Your task to perform on an android device: turn off wifi Image 0: 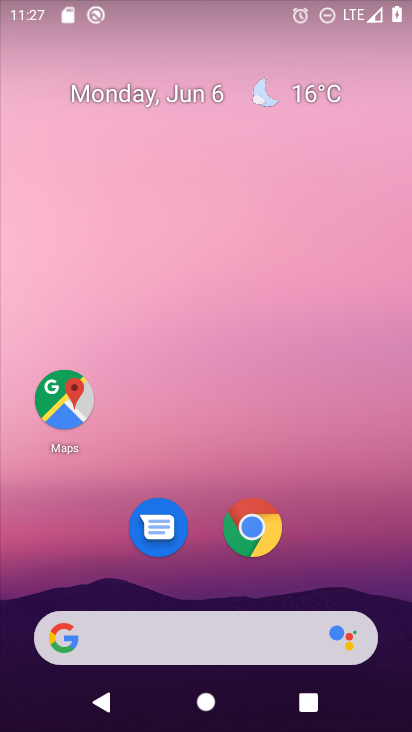
Step 0: drag from (332, 532) to (325, 133)
Your task to perform on an android device: turn off wifi Image 1: 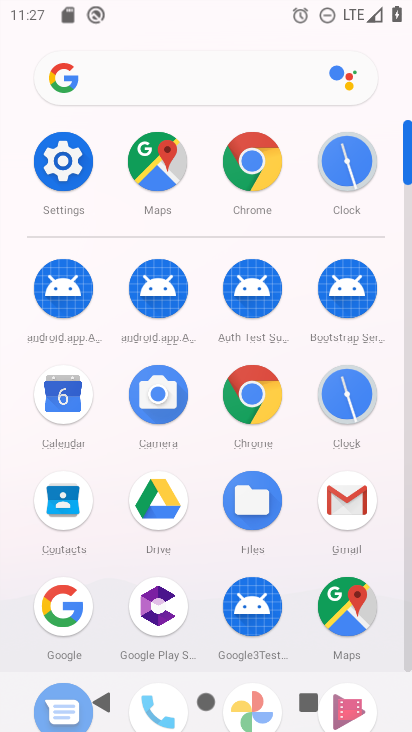
Step 1: click (47, 174)
Your task to perform on an android device: turn off wifi Image 2: 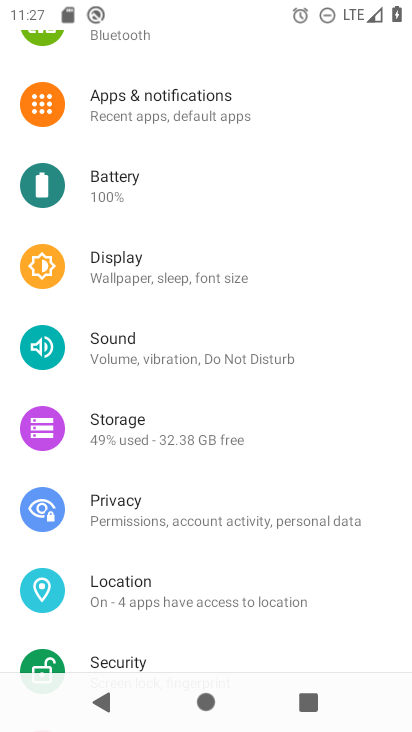
Step 2: drag from (343, 400) to (346, 241)
Your task to perform on an android device: turn off wifi Image 3: 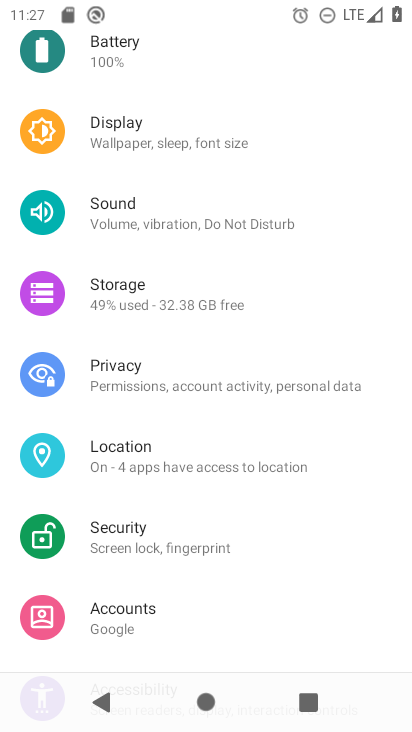
Step 3: drag from (367, 478) to (363, 223)
Your task to perform on an android device: turn off wifi Image 4: 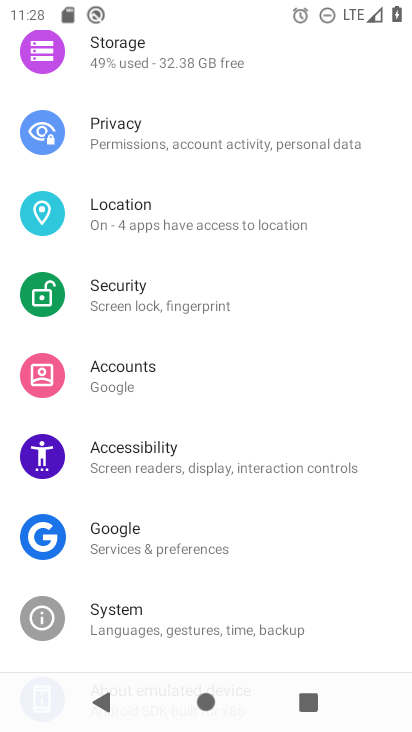
Step 4: drag from (352, 508) to (397, 227)
Your task to perform on an android device: turn off wifi Image 5: 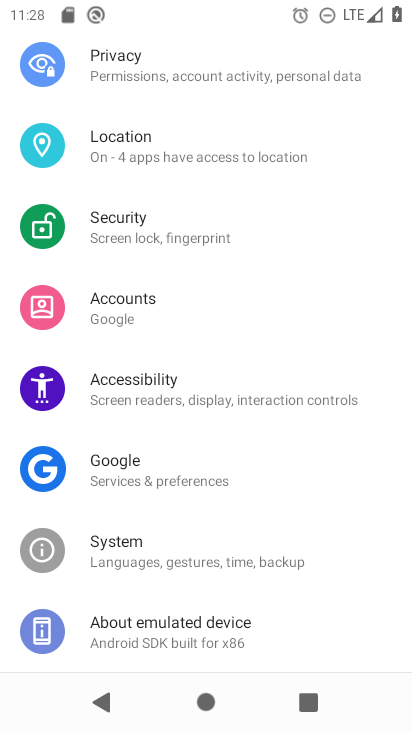
Step 5: drag from (362, 231) to (375, 471)
Your task to perform on an android device: turn off wifi Image 6: 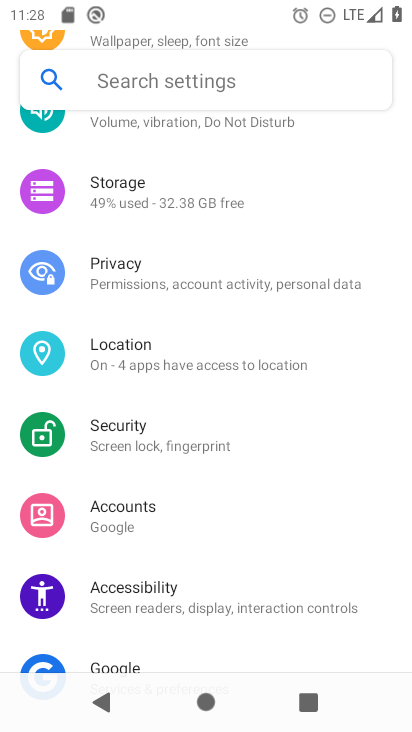
Step 6: drag from (357, 203) to (397, 439)
Your task to perform on an android device: turn off wifi Image 7: 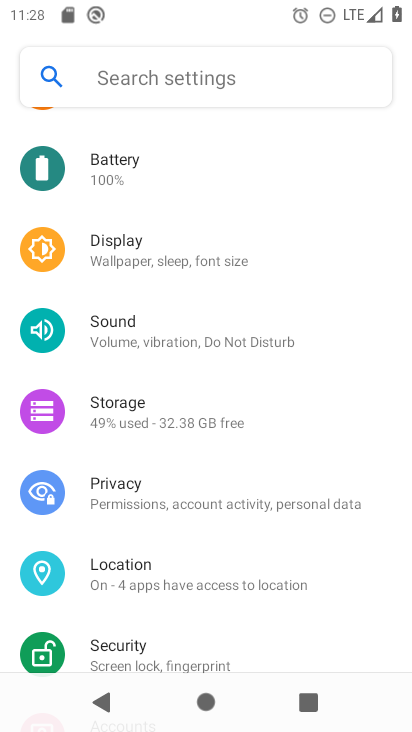
Step 7: drag from (339, 201) to (354, 449)
Your task to perform on an android device: turn off wifi Image 8: 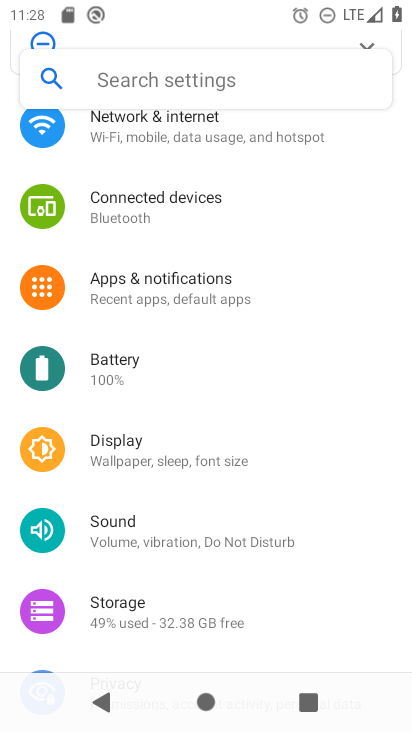
Step 8: drag from (328, 232) to (346, 390)
Your task to perform on an android device: turn off wifi Image 9: 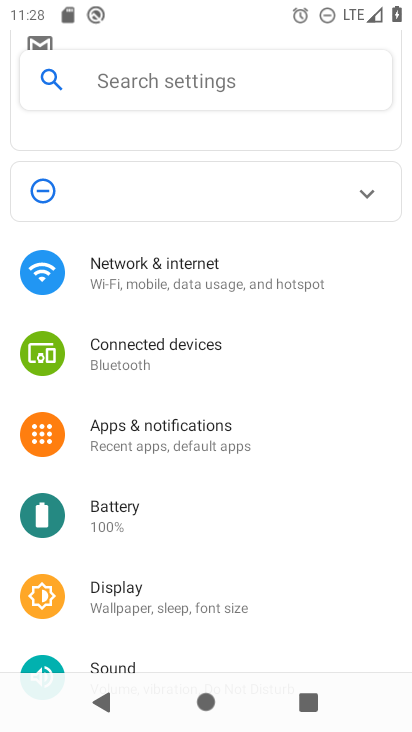
Step 9: click (251, 276)
Your task to perform on an android device: turn off wifi Image 10: 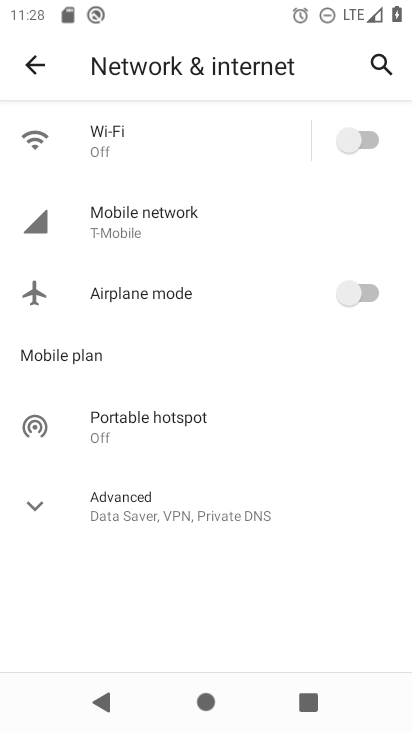
Step 10: task complete